Your task to perform on an android device: set an alarm Image 0: 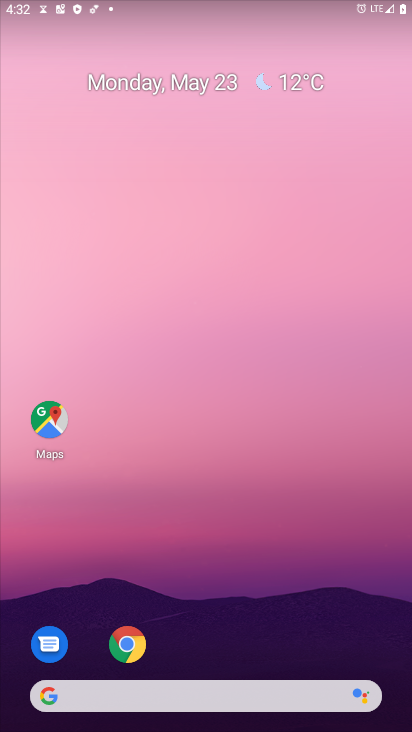
Step 0: drag from (222, 637) to (309, 16)
Your task to perform on an android device: set an alarm Image 1: 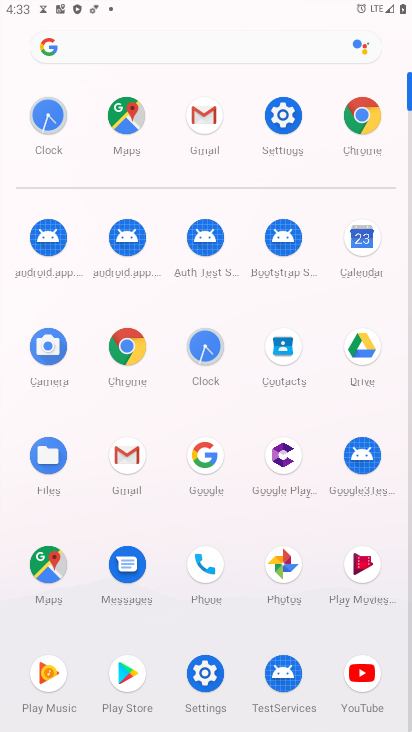
Step 1: click (54, 135)
Your task to perform on an android device: set an alarm Image 2: 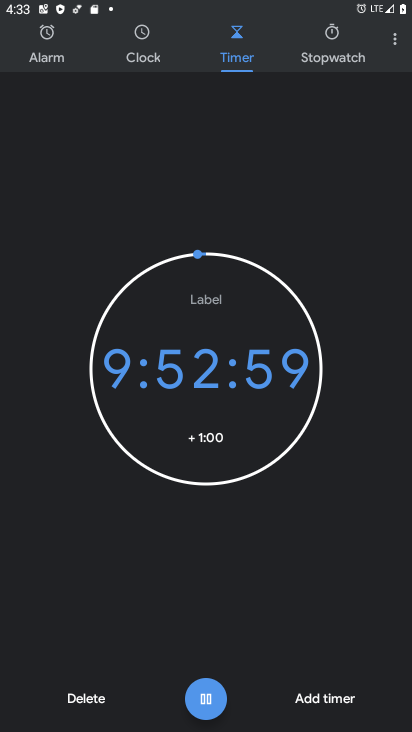
Step 2: click (48, 46)
Your task to perform on an android device: set an alarm Image 3: 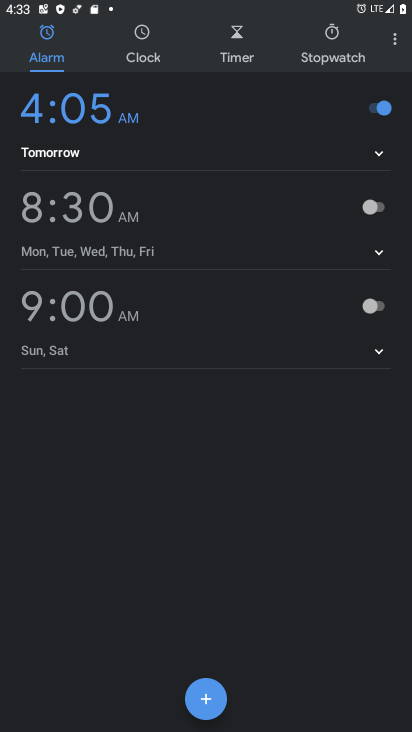
Step 3: click (211, 698)
Your task to perform on an android device: set an alarm Image 4: 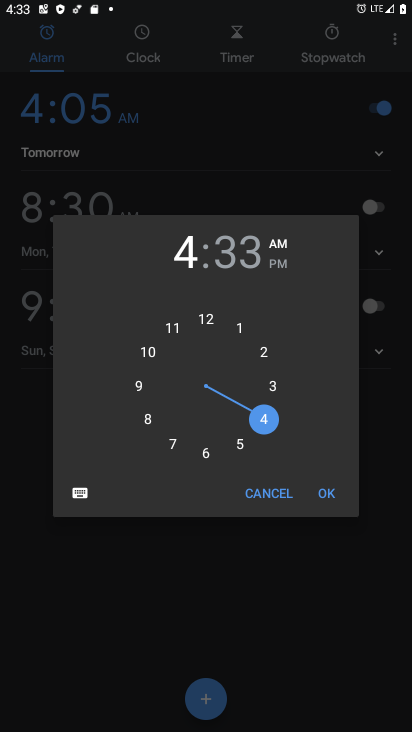
Step 4: click (347, 506)
Your task to perform on an android device: set an alarm Image 5: 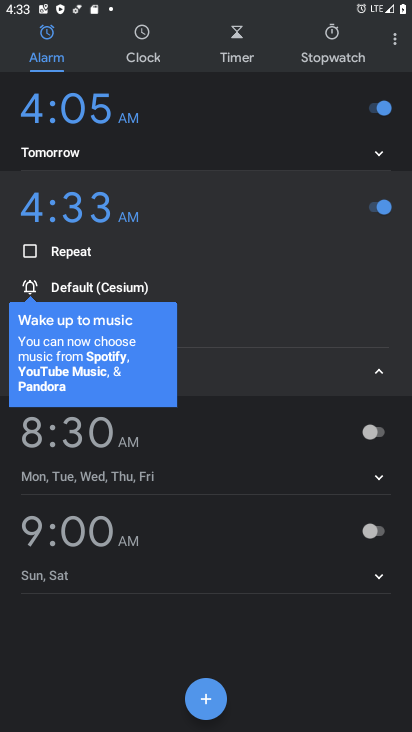
Step 5: task complete